Your task to perform on an android device: Open Wikipedia Image 0: 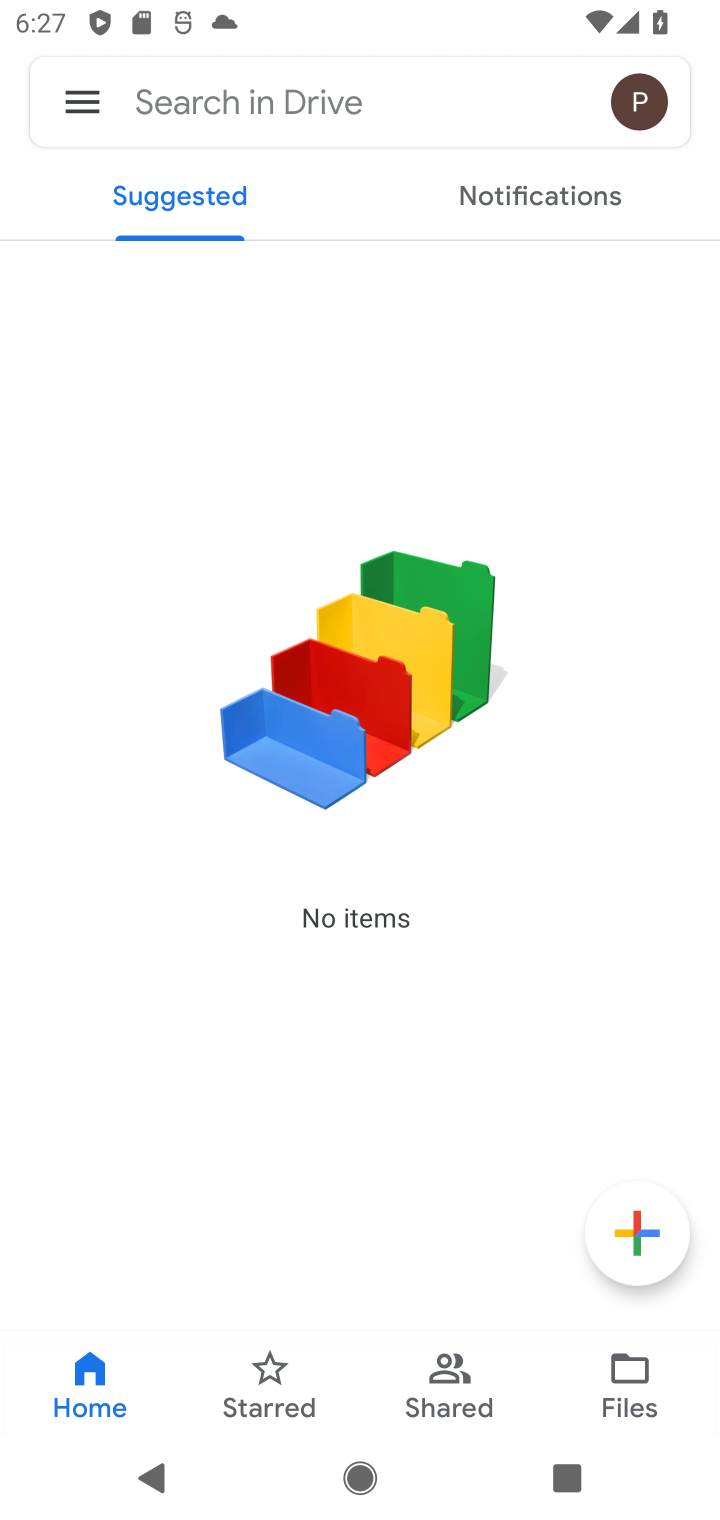
Step 0: press home button
Your task to perform on an android device: Open Wikipedia Image 1: 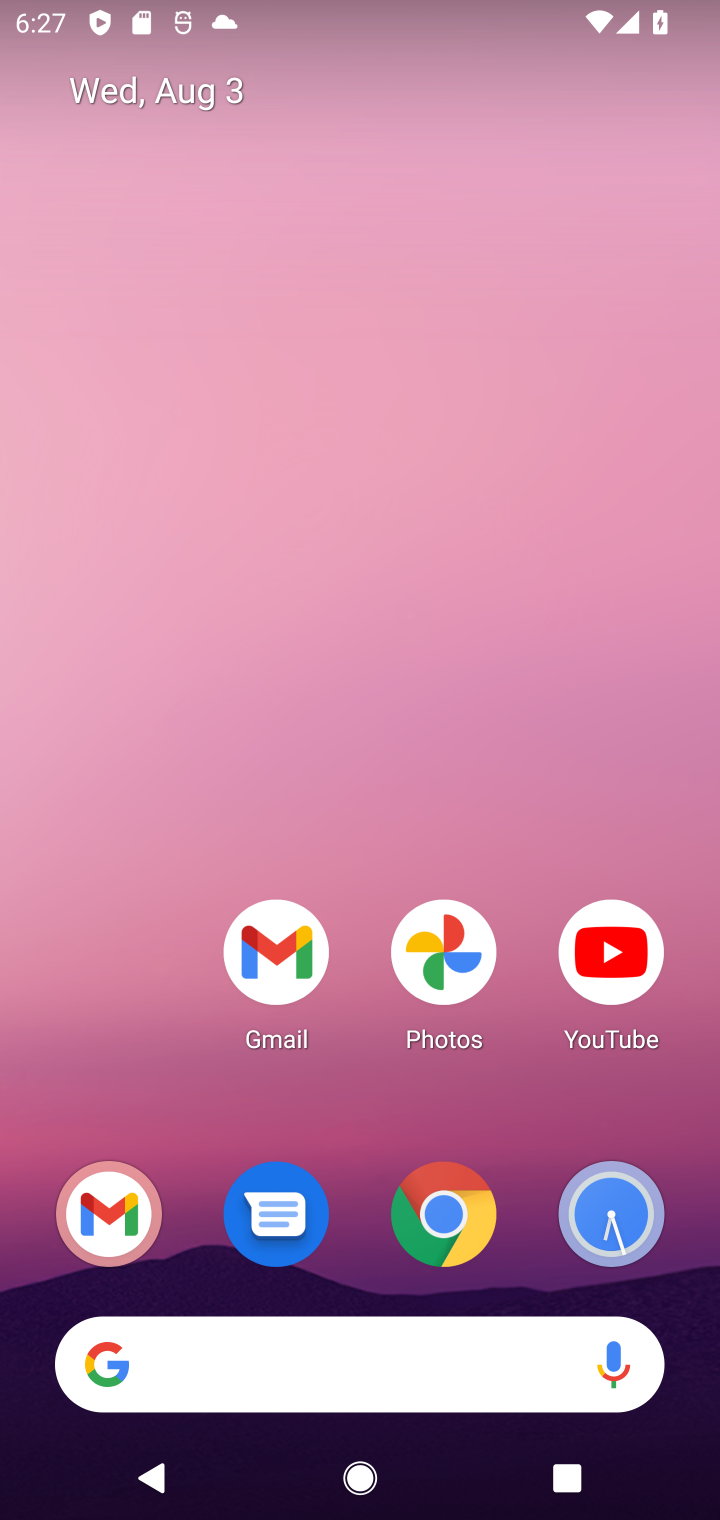
Step 1: drag from (68, 847) to (212, 55)
Your task to perform on an android device: Open Wikipedia Image 2: 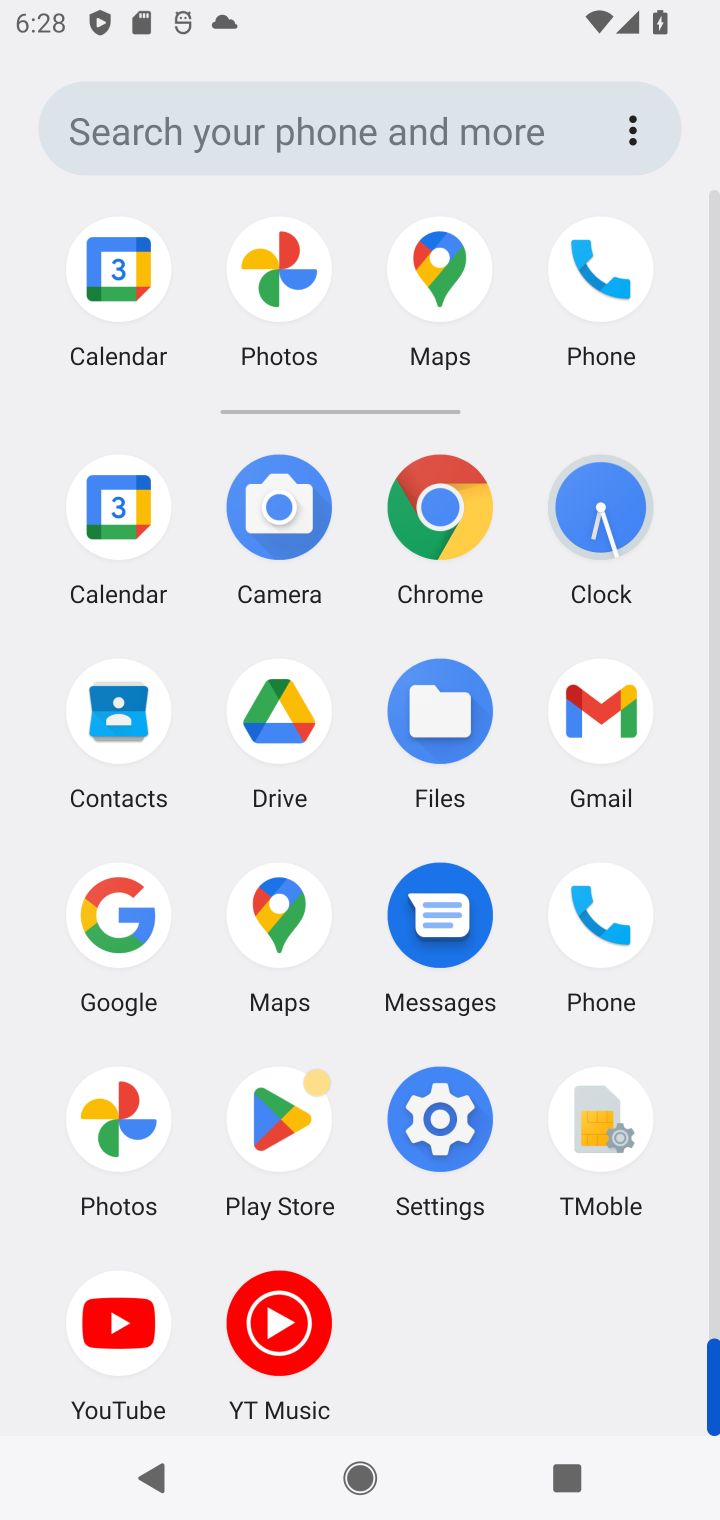
Step 2: click (427, 528)
Your task to perform on an android device: Open Wikipedia Image 3: 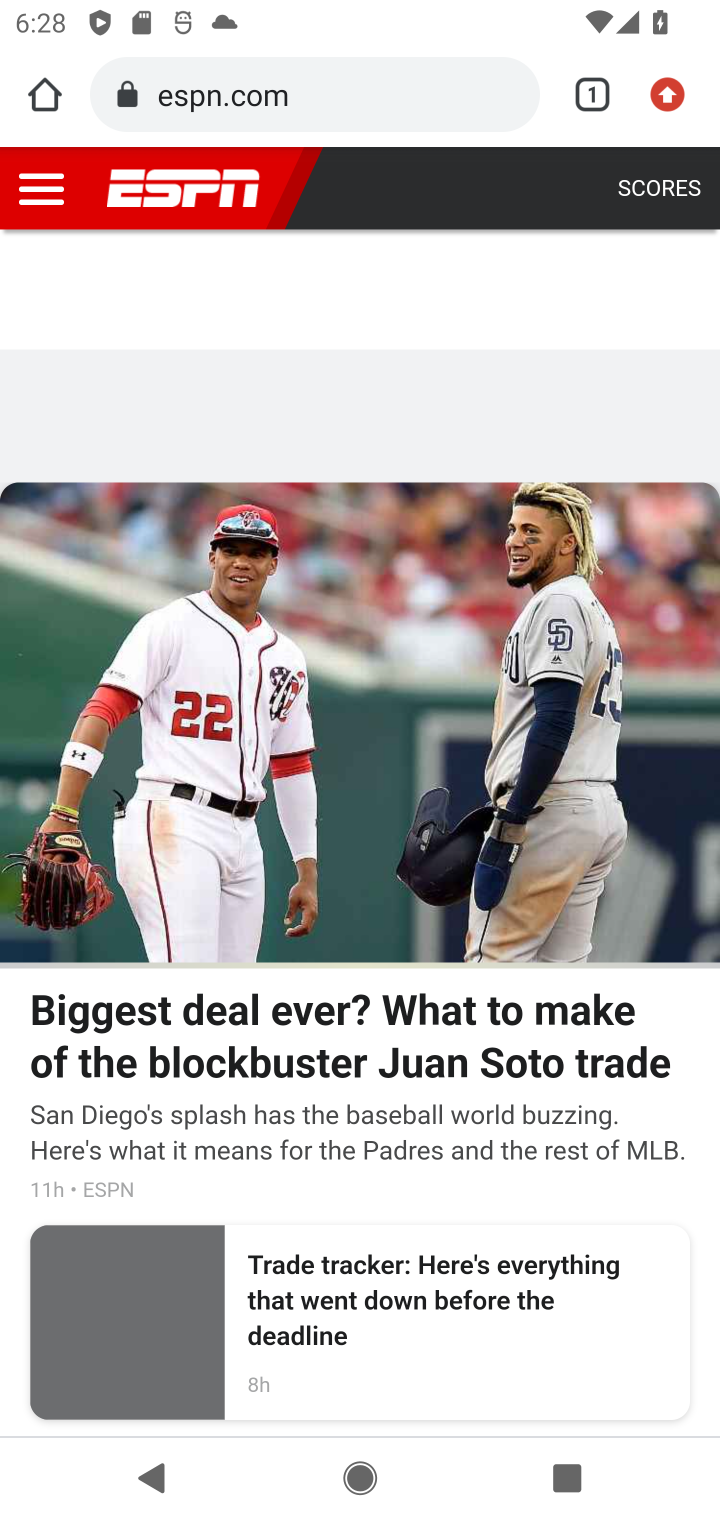
Step 3: click (337, 100)
Your task to perform on an android device: Open Wikipedia Image 4: 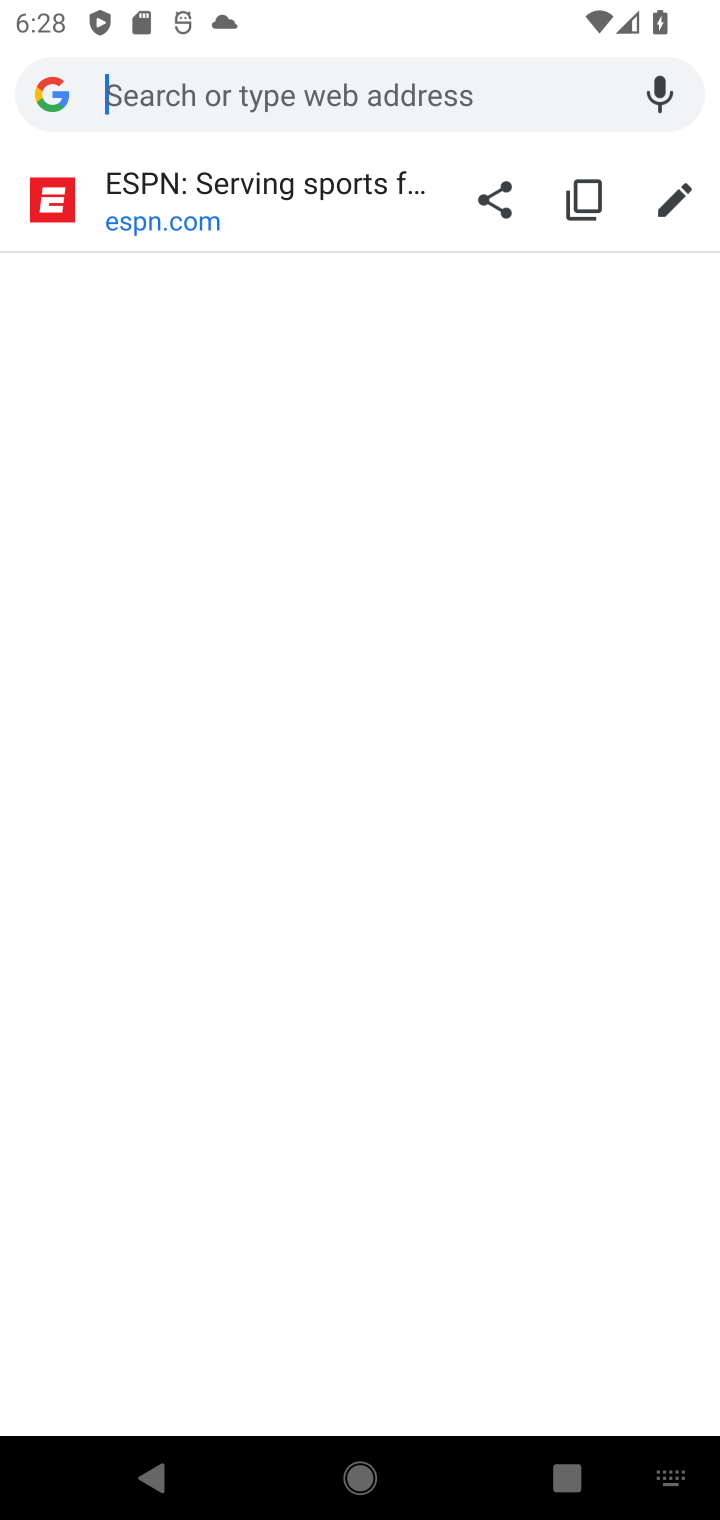
Step 4: type "Wikipedia"
Your task to perform on an android device: Open Wikipedia Image 5: 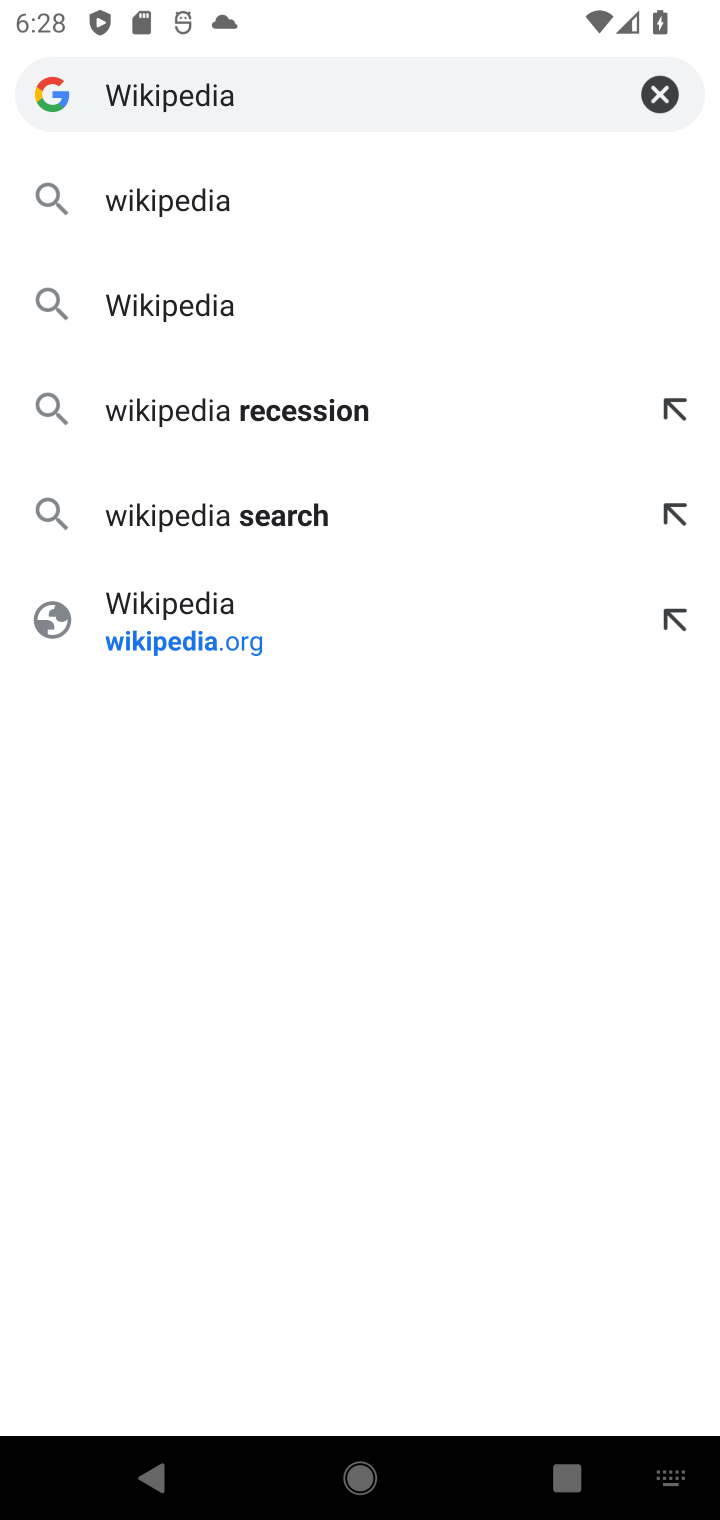
Step 5: click (159, 213)
Your task to perform on an android device: Open Wikipedia Image 6: 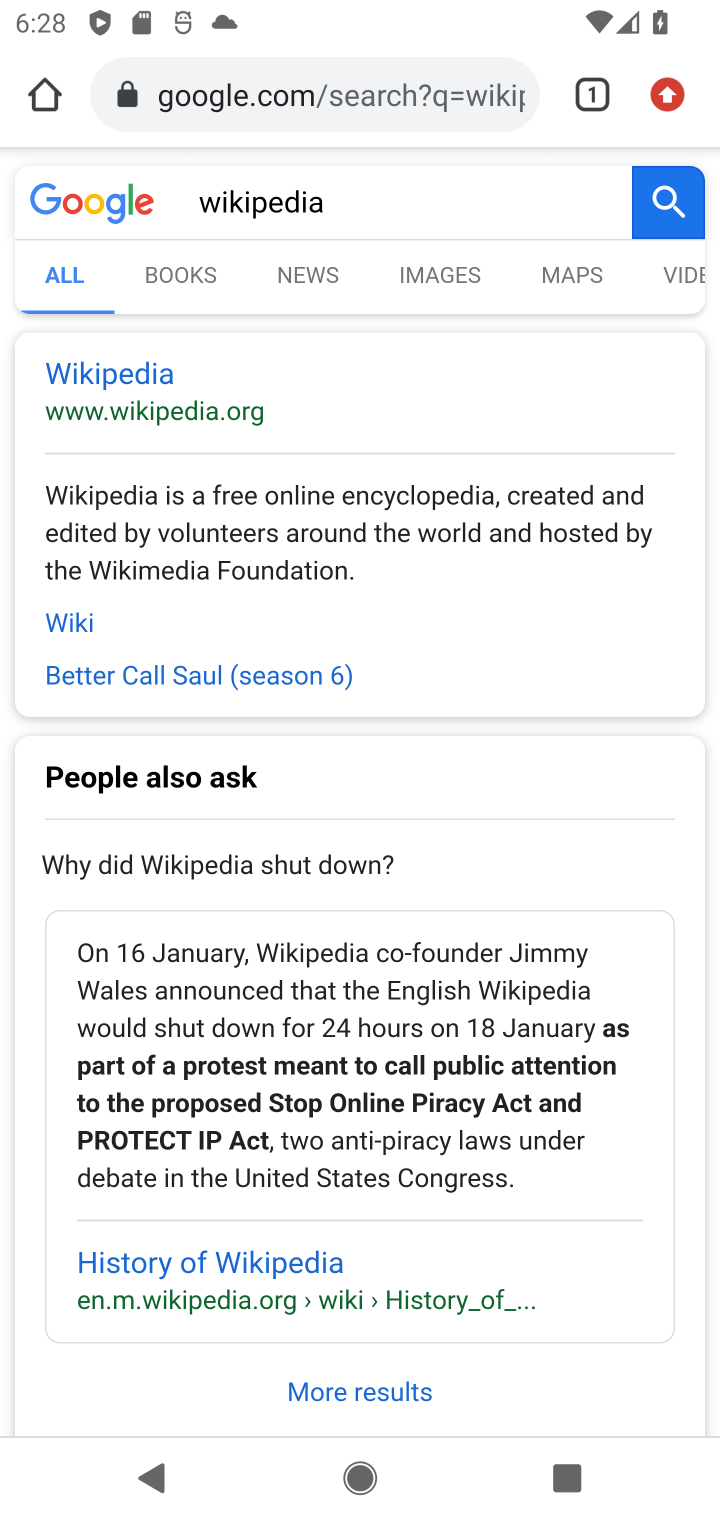
Step 6: click (84, 397)
Your task to perform on an android device: Open Wikipedia Image 7: 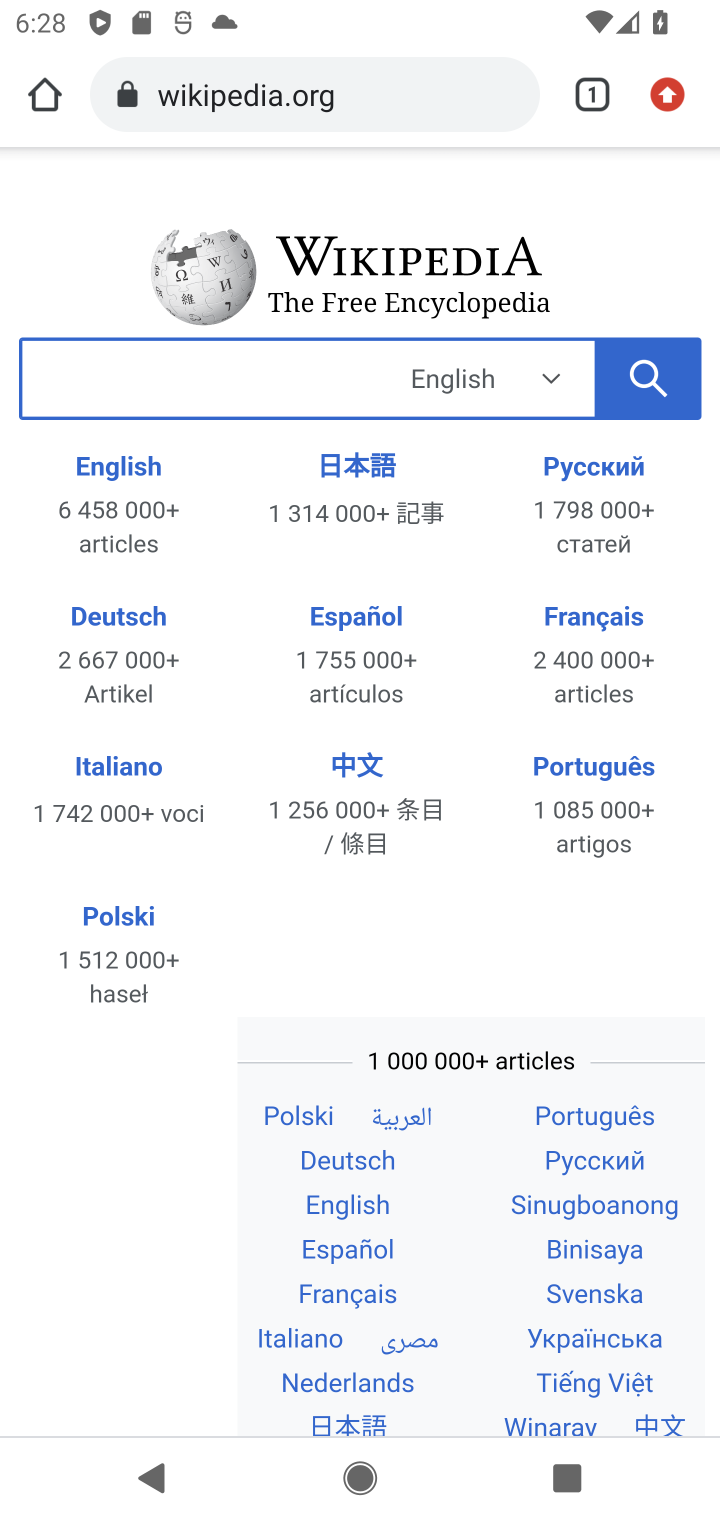
Step 7: task complete